Your task to perform on an android device: Open Youtube and go to the subscriptions tab Image 0: 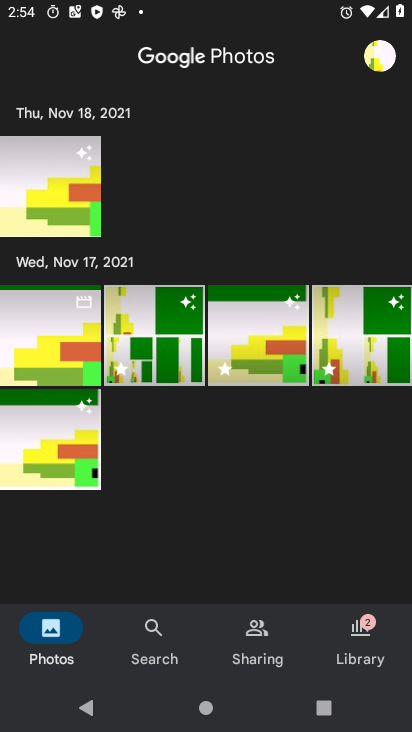
Step 0: press home button
Your task to perform on an android device: Open Youtube and go to the subscriptions tab Image 1: 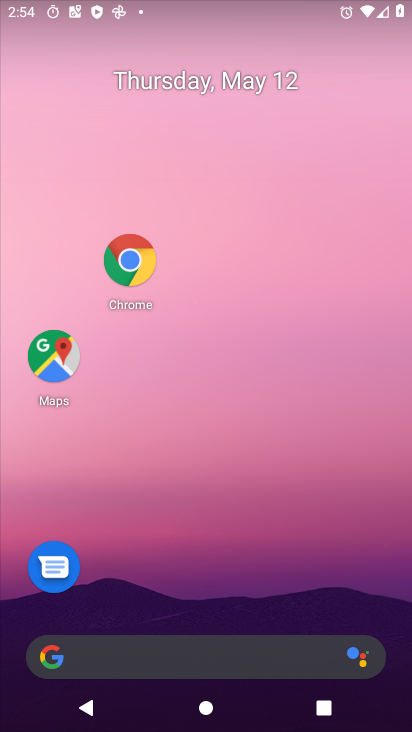
Step 1: drag from (179, 484) to (159, 341)
Your task to perform on an android device: Open Youtube and go to the subscriptions tab Image 2: 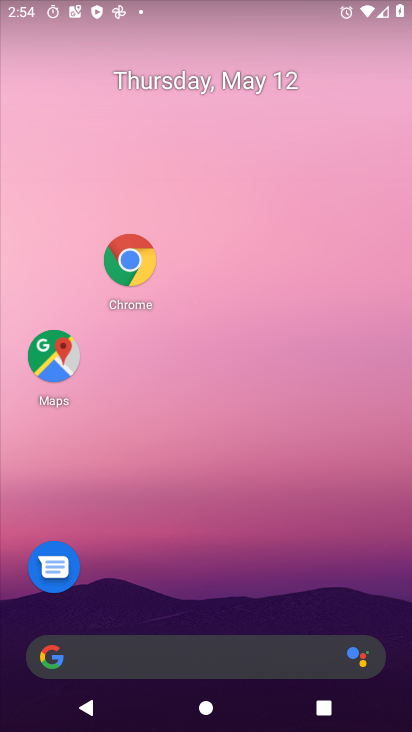
Step 2: drag from (246, 659) to (225, 254)
Your task to perform on an android device: Open Youtube and go to the subscriptions tab Image 3: 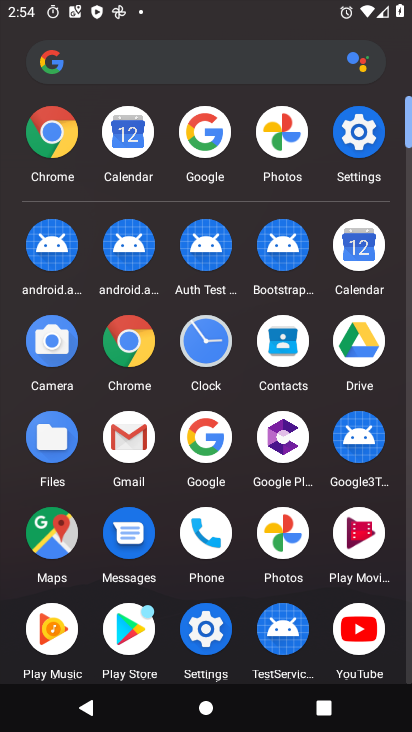
Step 3: click (374, 621)
Your task to perform on an android device: Open Youtube and go to the subscriptions tab Image 4: 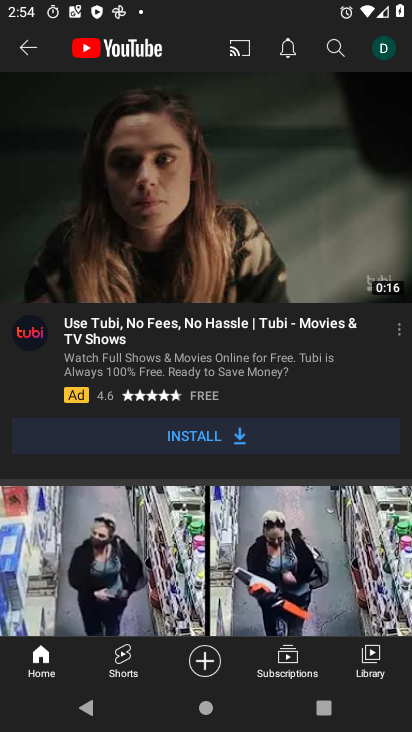
Step 4: click (296, 654)
Your task to perform on an android device: Open Youtube and go to the subscriptions tab Image 5: 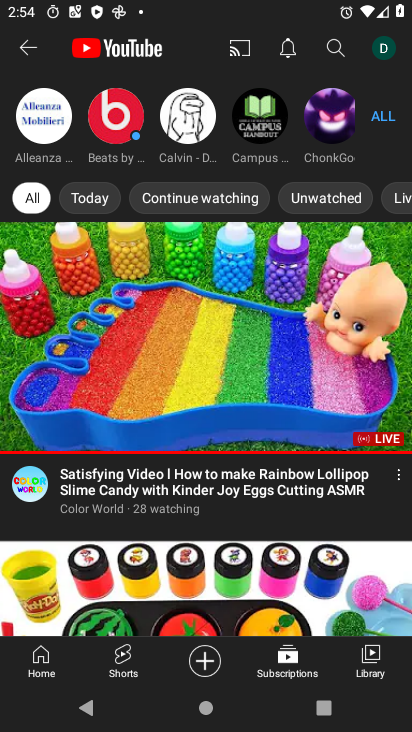
Step 5: task complete